Your task to perform on an android device: Go to ESPN.com Image 0: 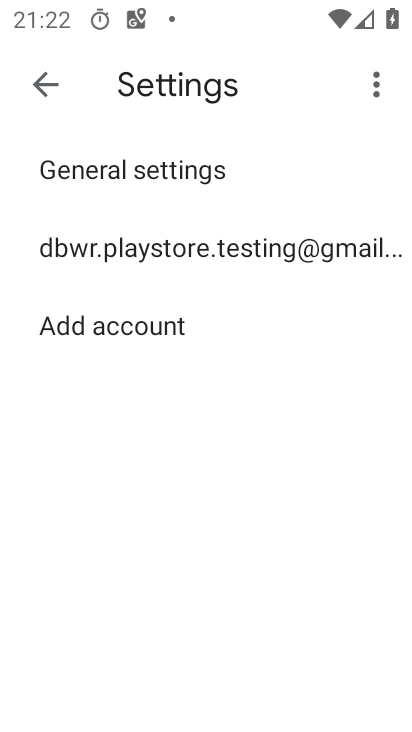
Step 0: press home button
Your task to perform on an android device: Go to ESPN.com Image 1: 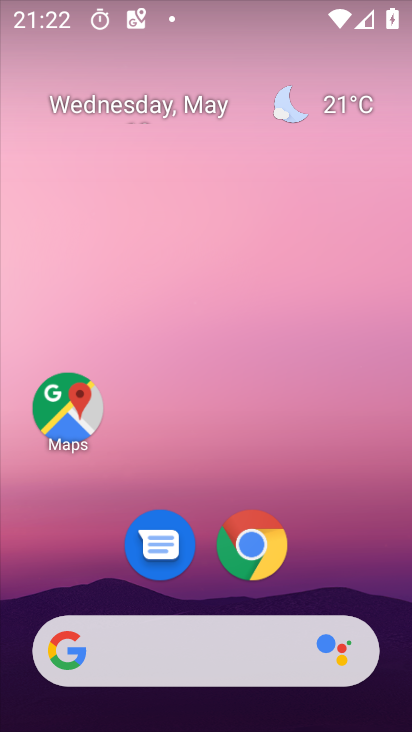
Step 1: click (265, 540)
Your task to perform on an android device: Go to ESPN.com Image 2: 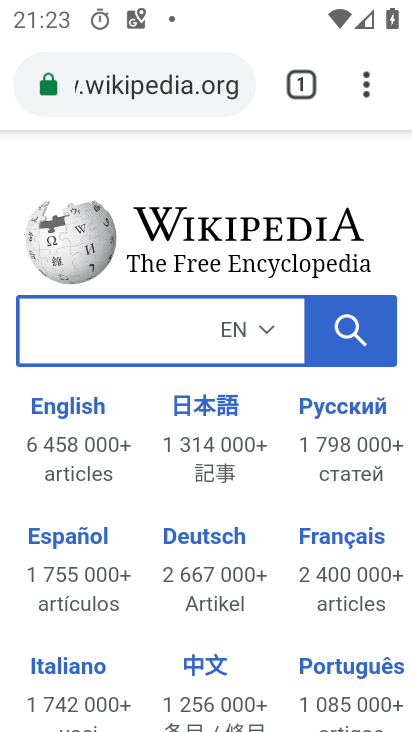
Step 2: click (73, 102)
Your task to perform on an android device: Go to ESPN.com Image 3: 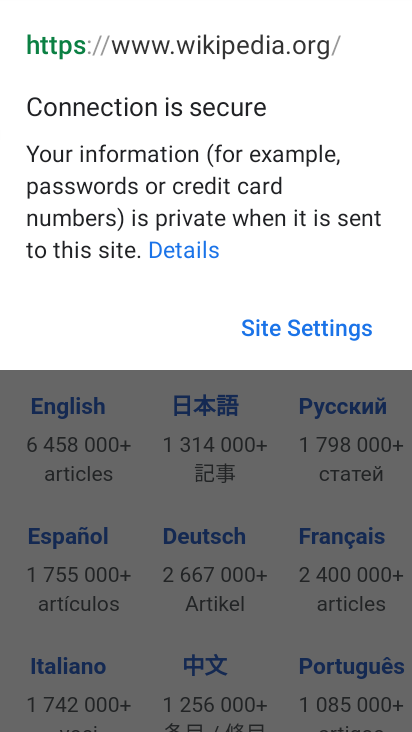
Step 3: click (333, 472)
Your task to perform on an android device: Go to ESPN.com Image 4: 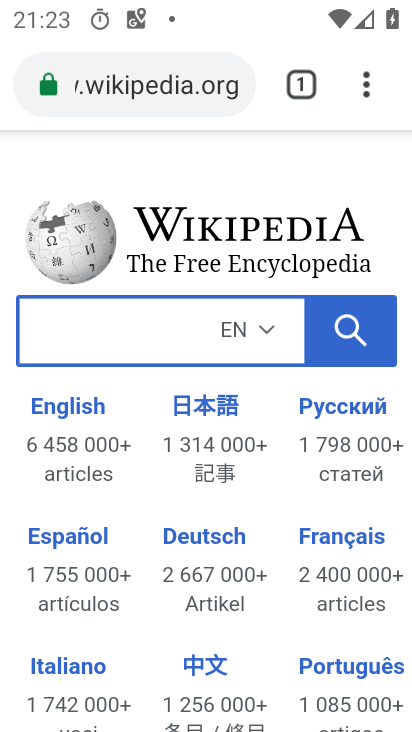
Step 4: click (127, 75)
Your task to perform on an android device: Go to ESPN.com Image 5: 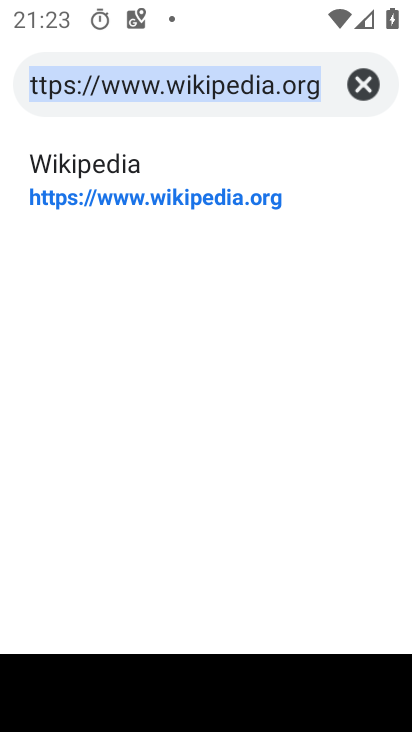
Step 5: type "ESPN.com"
Your task to perform on an android device: Go to ESPN.com Image 6: 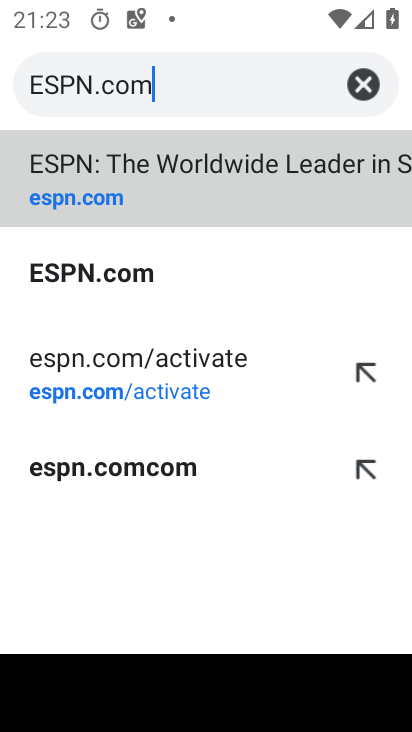
Step 6: click (75, 198)
Your task to perform on an android device: Go to ESPN.com Image 7: 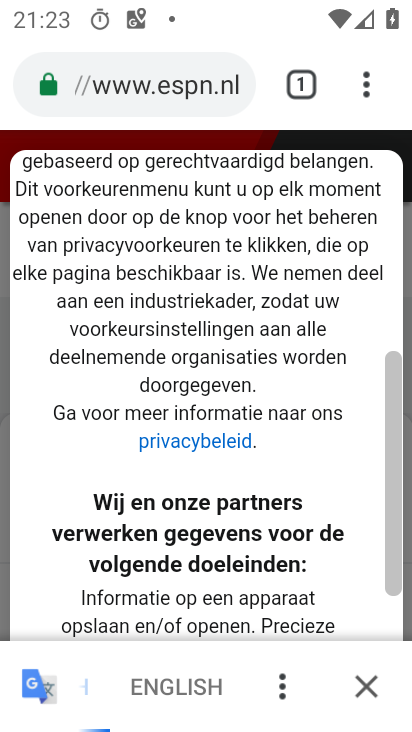
Step 7: task complete